Your task to perform on an android device: Open settings Image 0: 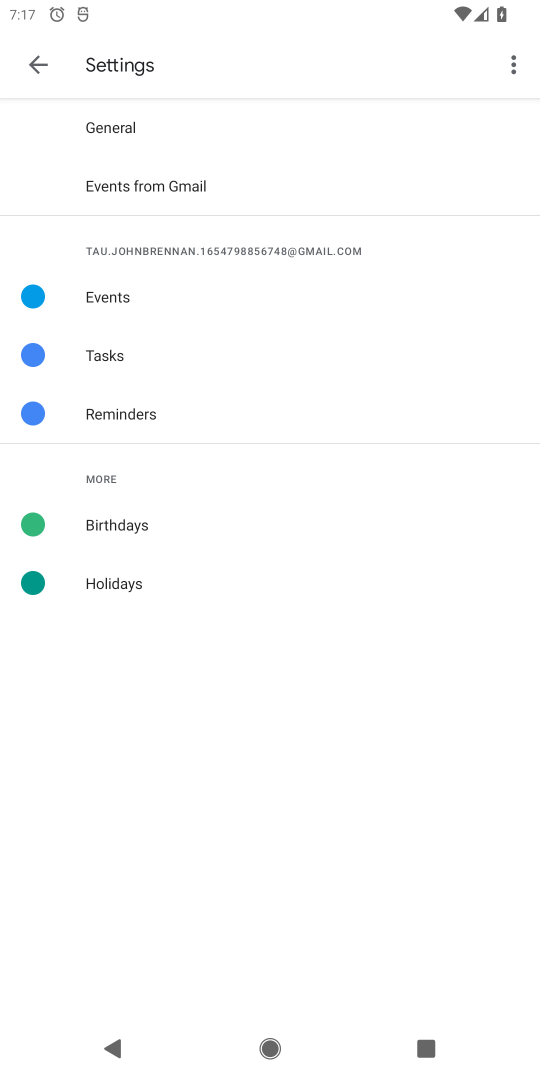
Step 0: press home button
Your task to perform on an android device: Open settings Image 1: 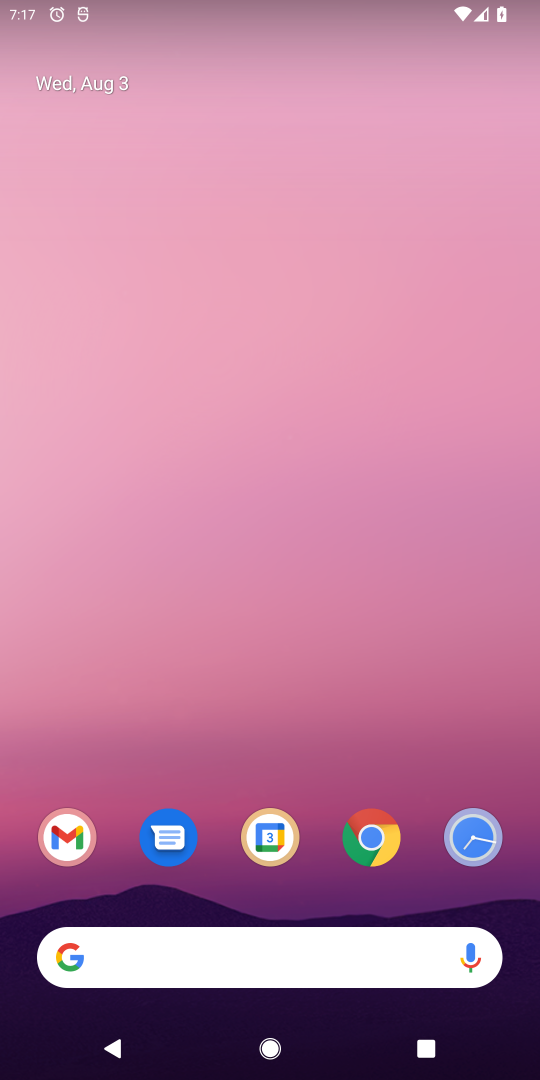
Step 1: drag from (328, 684) to (243, 26)
Your task to perform on an android device: Open settings Image 2: 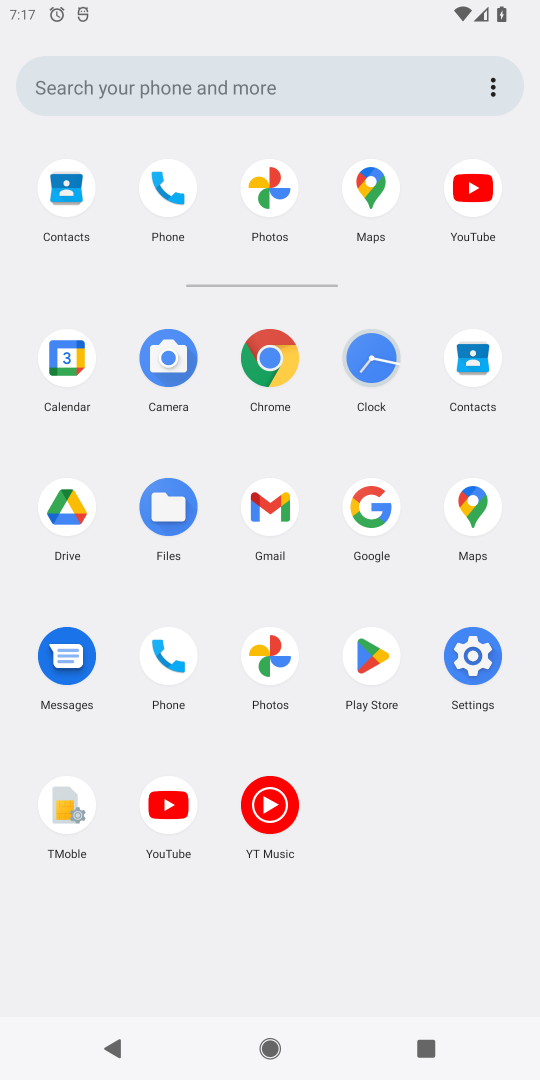
Step 2: click (470, 637)
Your task to perform on an android device: Open settings Image 3: 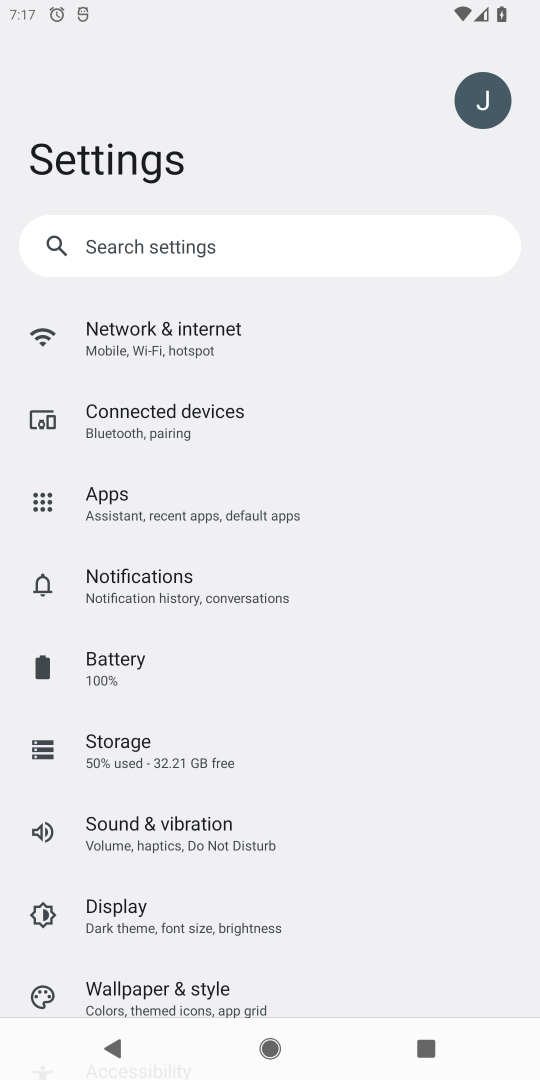
Step 3: task complete